Your task to perform on an android device: add a contact Image 0: 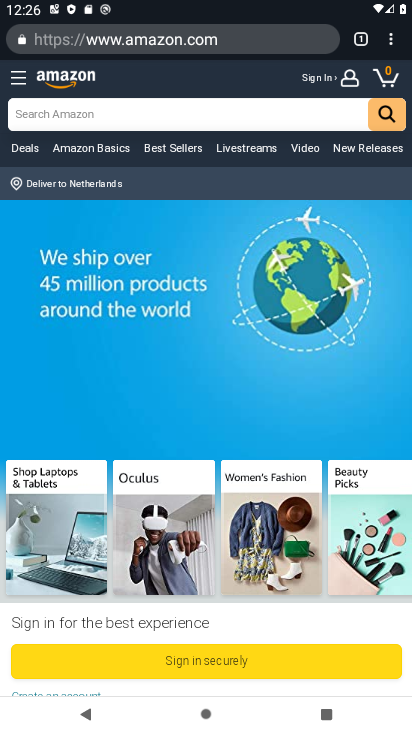
Step 0: press home button
Your task to perform on an android device: add a contact Image 1: 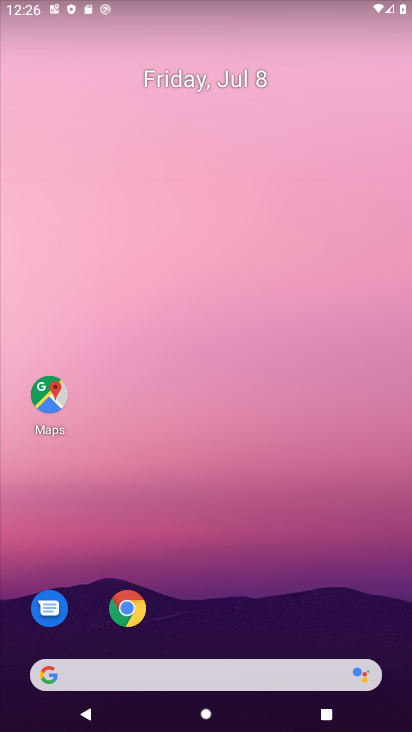
Step 1: drag from (251, 545) to (240, 116)
Your task to perform on an android device: add a contact Image 2: 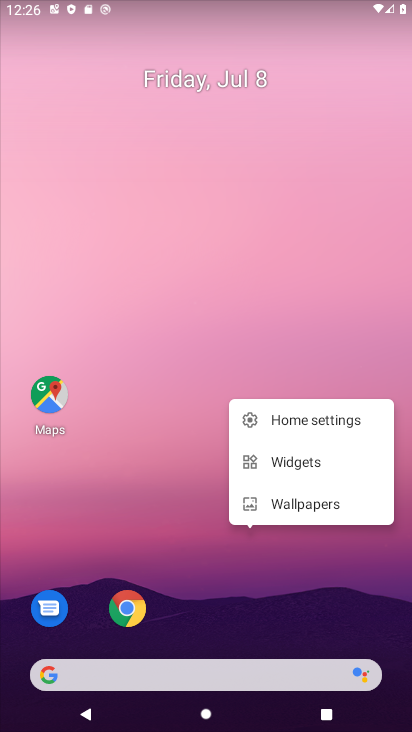
Step 2: click (240, 116)
Your task to perform on an android device: add a contact Image 3: 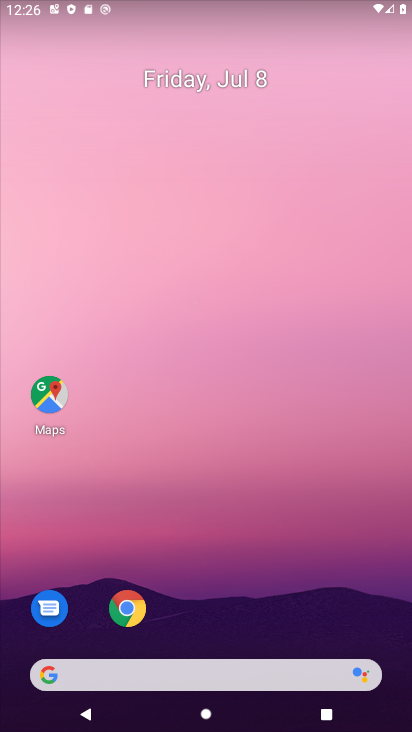
Step 3: drag from (264, 613) to (296, 28)
Your task to perform on an android device: add a contact Image 4: 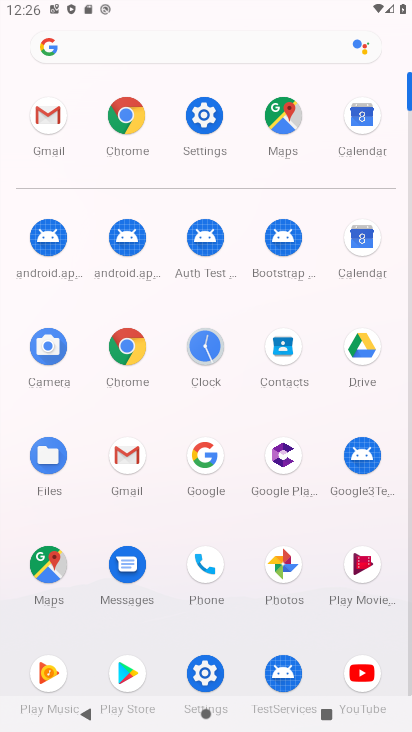
Step 4: click (281, 381)
Your task to perform on an android device: add a contact Image 5: 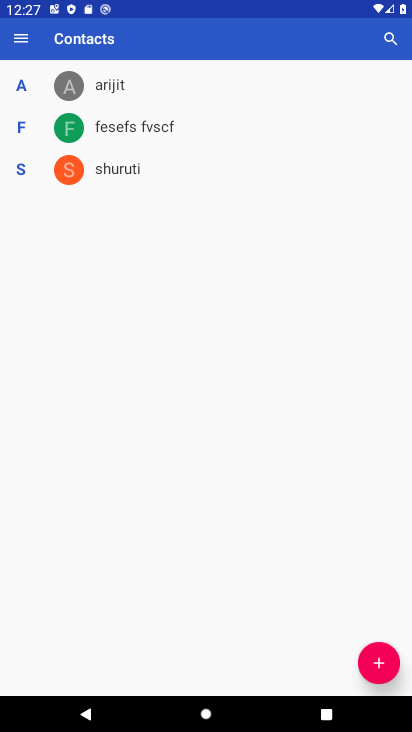
Step 5: click (375, 650)
Your task to perform on an android device: add a contact Image 6: 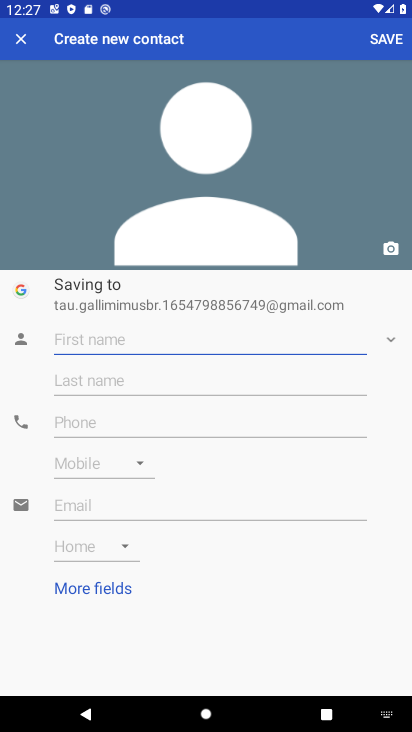
Step 6: type "svdfsfvdf"
Your task to perform on an android device: add a contact Image 7: 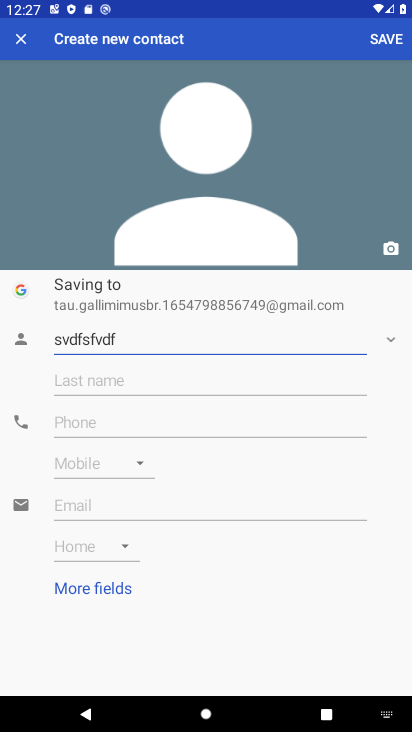
Step 7: click (157, 373)
Your task to perform on an android device: add a contact Image 8: 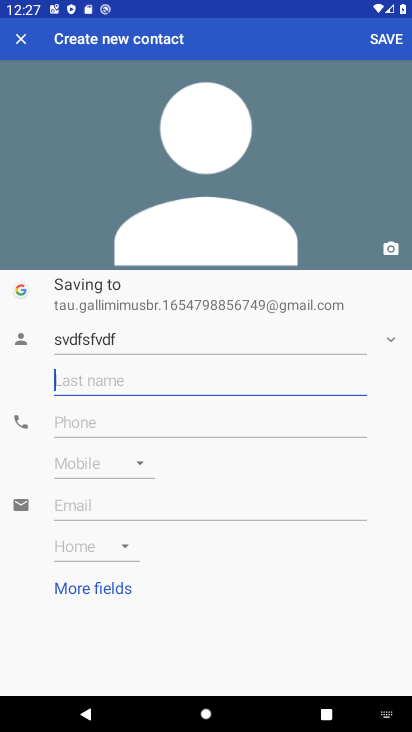
Step 8: type "vdcvdf"
Your task to perform on an android device: add a contact Image 9: 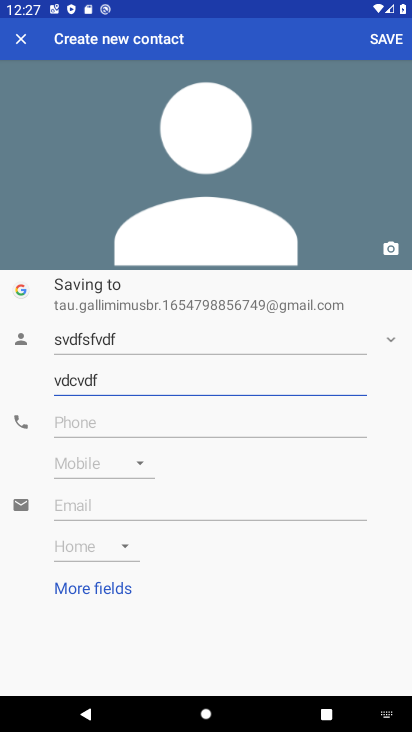
Step 9: click (79, 412)
Your task to perform on an android device: add a contact Image 10: 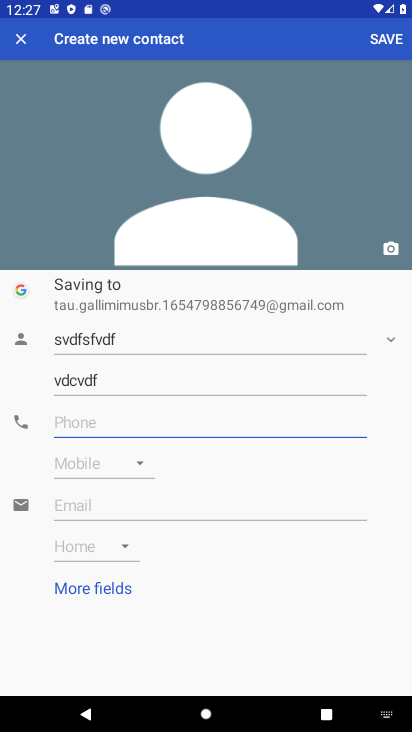
Step 10: type "234232354"
Your task to perform on an android device: add a contact Image 11: 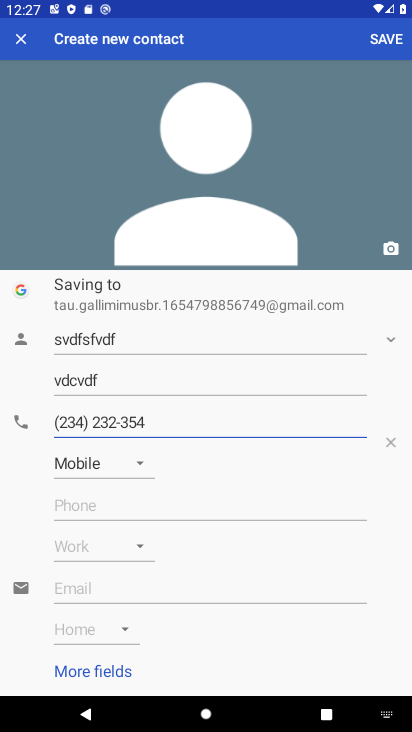
Step 11: click (392, 35)
Your task to perform on an android device: add a contact Image 12: 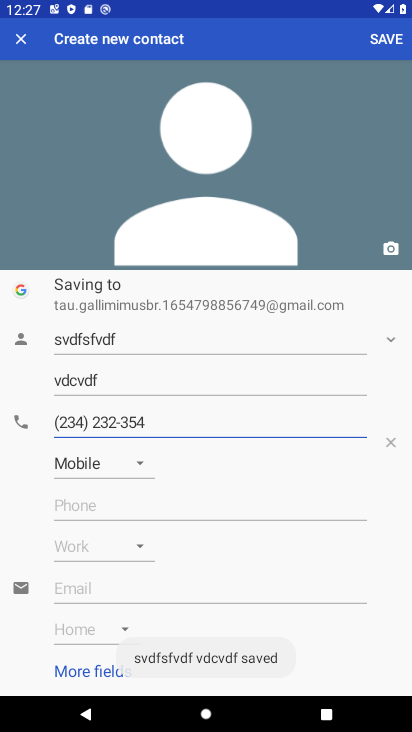
Step 12: task complete